Your task to perform on an android device: turn on wifi Image 0: 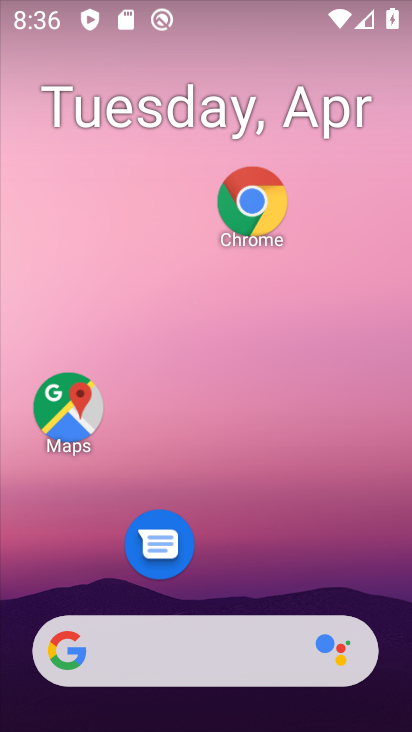
Step 0: drag from (164, 325) to (170, 4)
Your task to perform on an android device: turn on wifi Image 1: 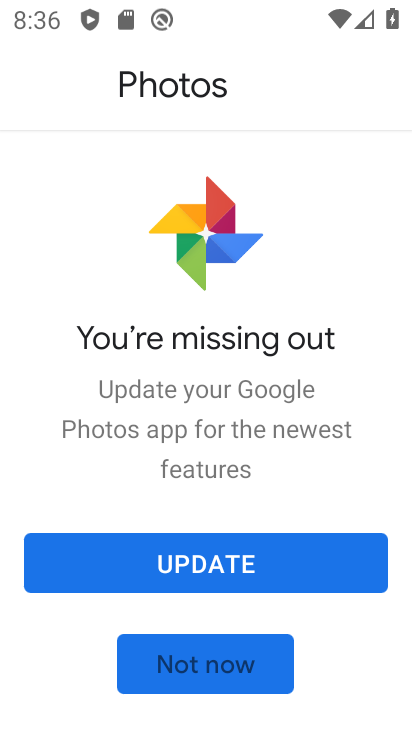
Step 1: task complete